Your task to perform on an android device: Open internet settings Image 0: 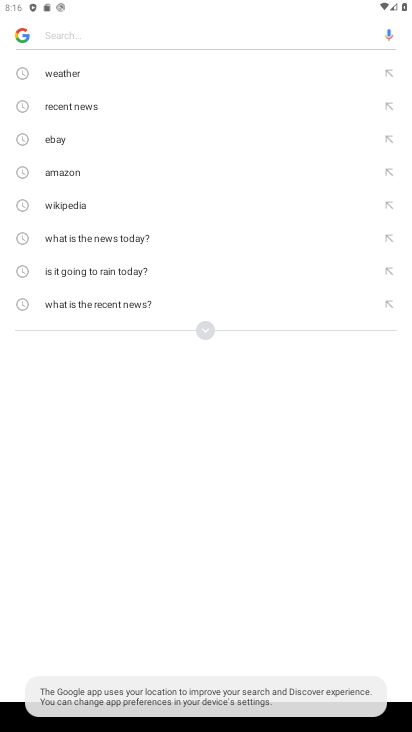
Step 0: press home button
Your task to perform on an android device: Open internet settings Image 1: 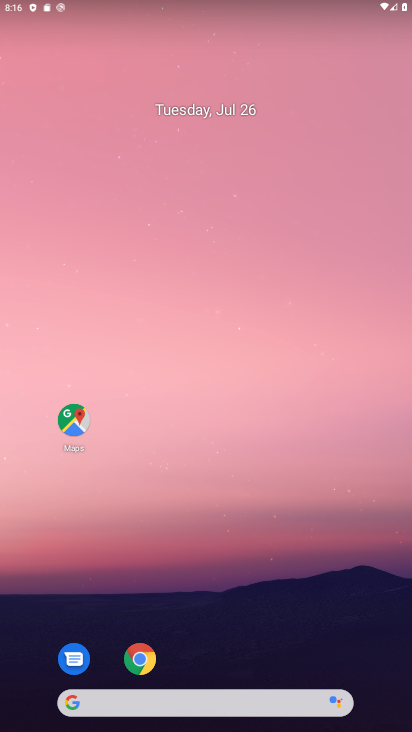
Step 1: drag from (173, 665) to (175, 168)
Your task to perform on an android device: Open internet settings Image 2: 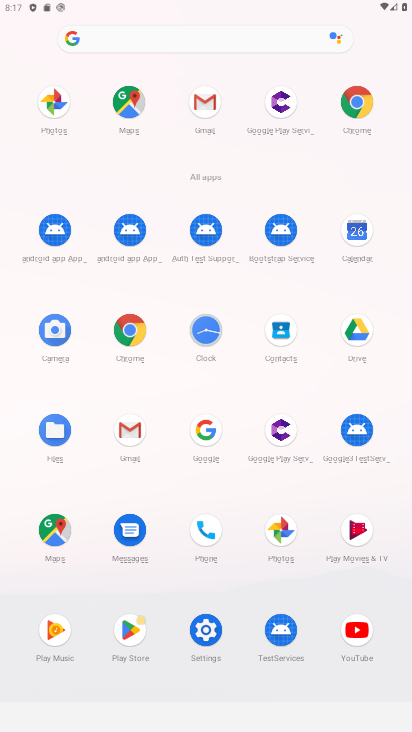
Step 2: click (200, 653)
Your task to perform on an android device: Open internet settings Image 3: 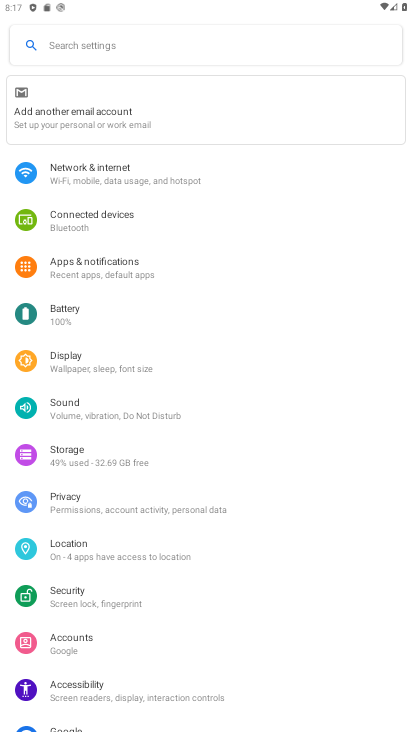
Step 3: click (129, 197)
Your task to perform on an android device: Open internet settings Image 4: 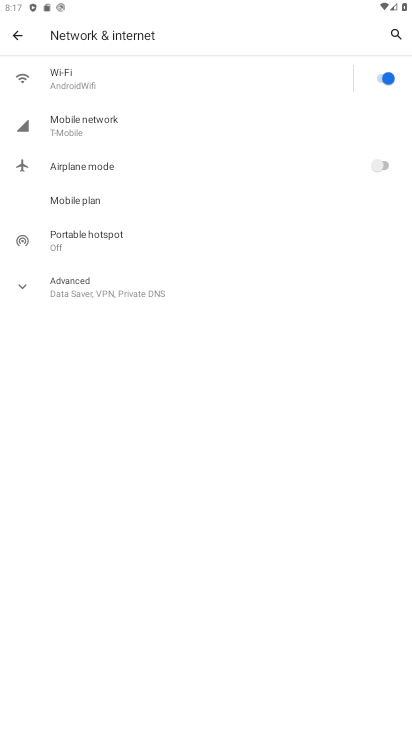
Step 4: task complete